Your task to perform on an android device: Show me productivity apps on the Play Store Image 0: 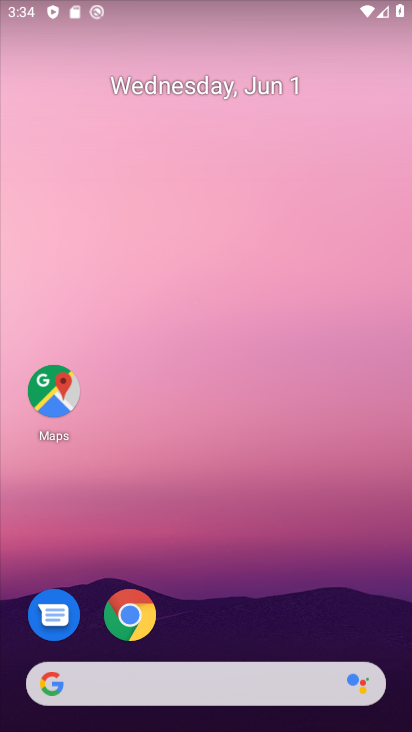
Step 0: drag from (285, 382) to (294, 121)
Your task to perform on an android device: Show me productivity apps on the Play Store Image 1: 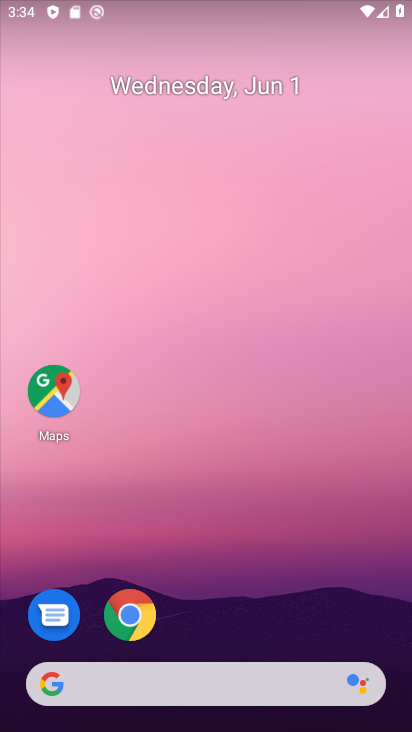
Step 1: drag from (320, 535) to (214, 67)
Your task to perform on an android device: Show me productivity apps on the Play Store Image 2: 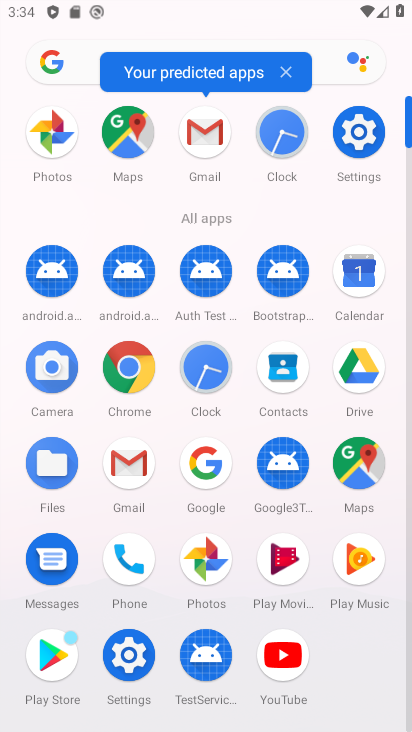
Step 2: click (58, 644)
Your task to perform on an android device: Show me productivity apps on the Play Store Image 3: 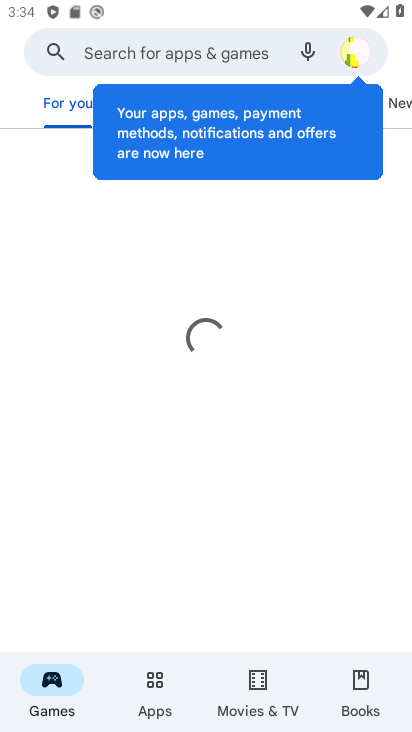
Step 3: click (153, 697)
Your task to perform on an android device: Show me productivity apps on the Play Store Image 4: 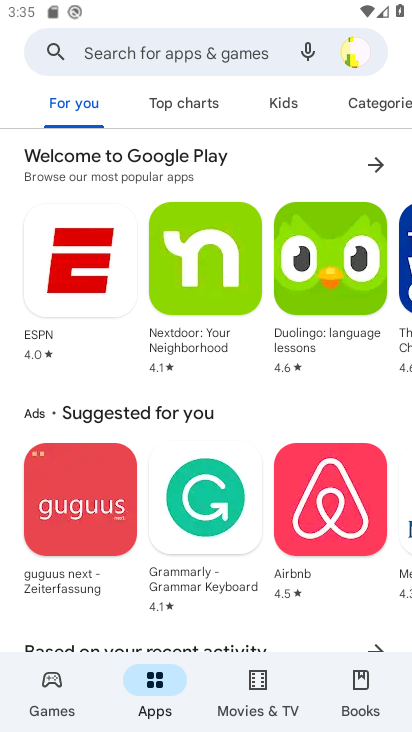
Step 4: task complete